Your task to perform on an android device: open sync settings in chrome Image 0: 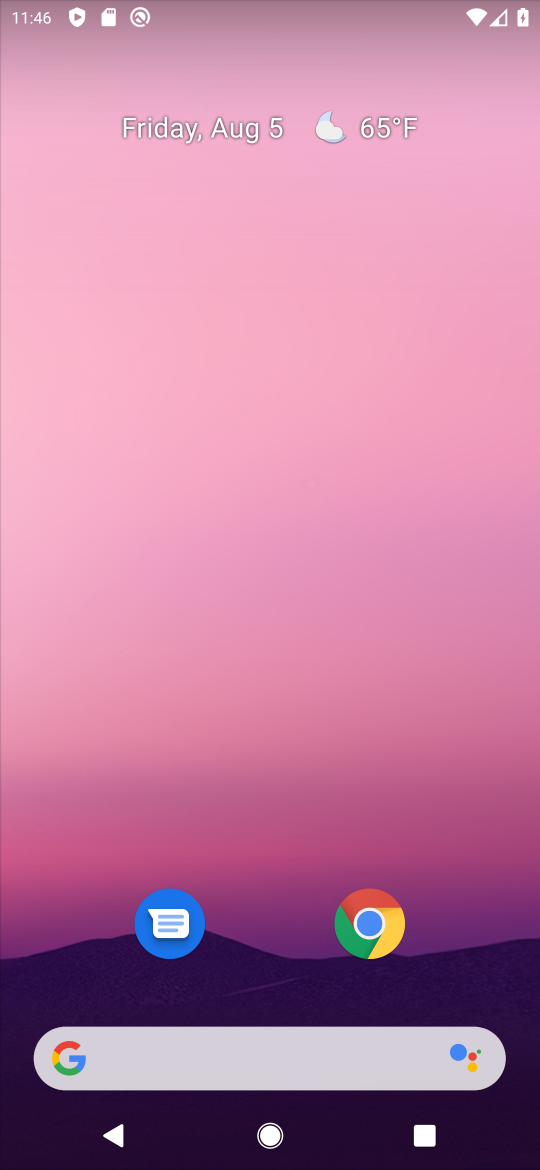
Step 0: drag from (451, 915) to (299, 187)
Your task to perform on an android device: open sync settings in chrome Image 1: 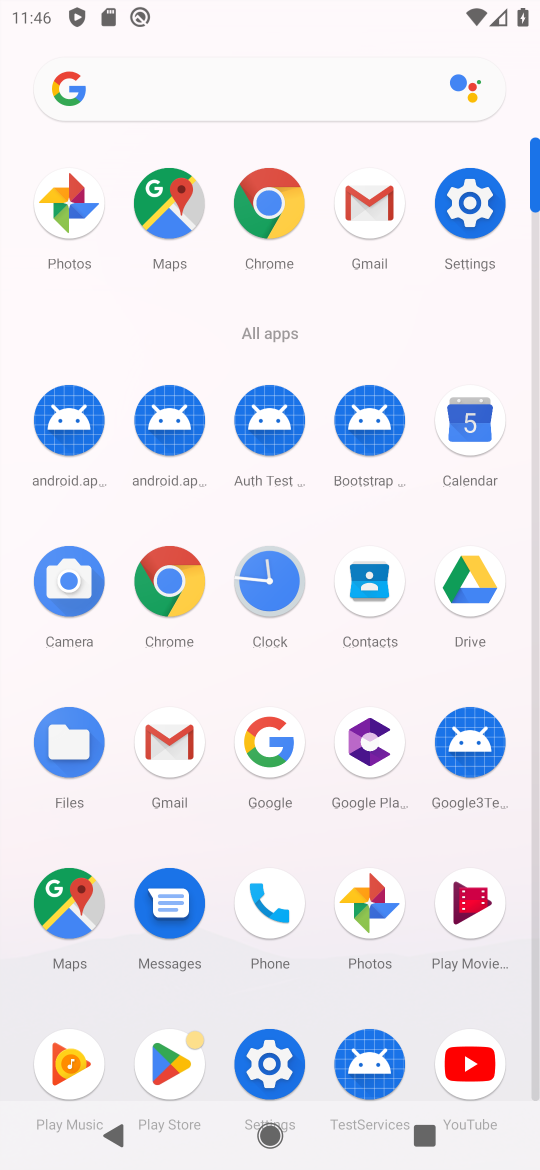
Step 1: click (280, 227)
Your task to perform on an android device: open sync settings in chrome Image 2: 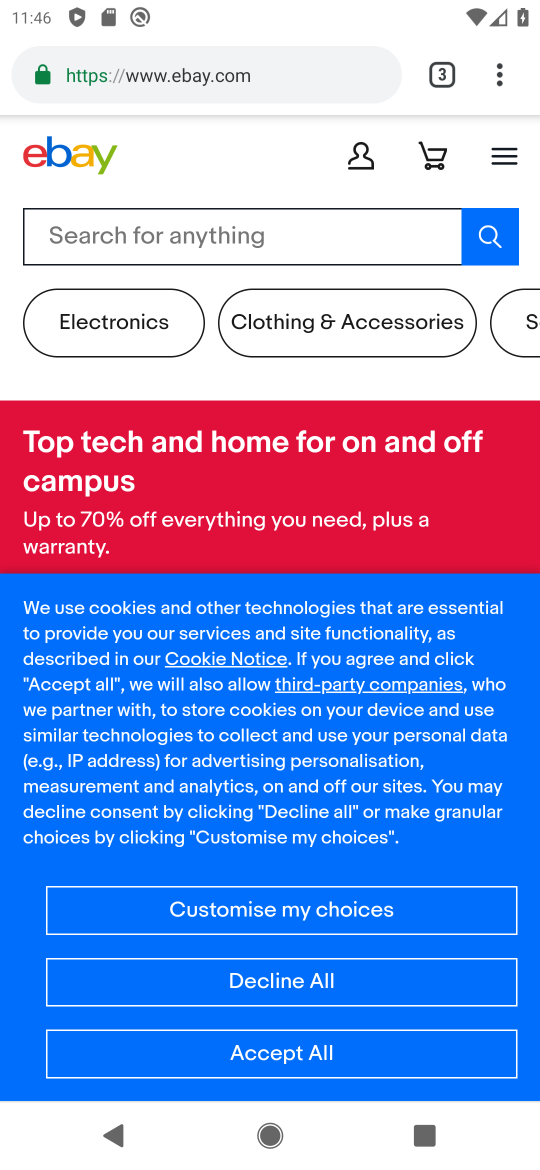
Step 2: click (492, 79)
Your task to perform on an android device: open sync settings in chrome Image 3: 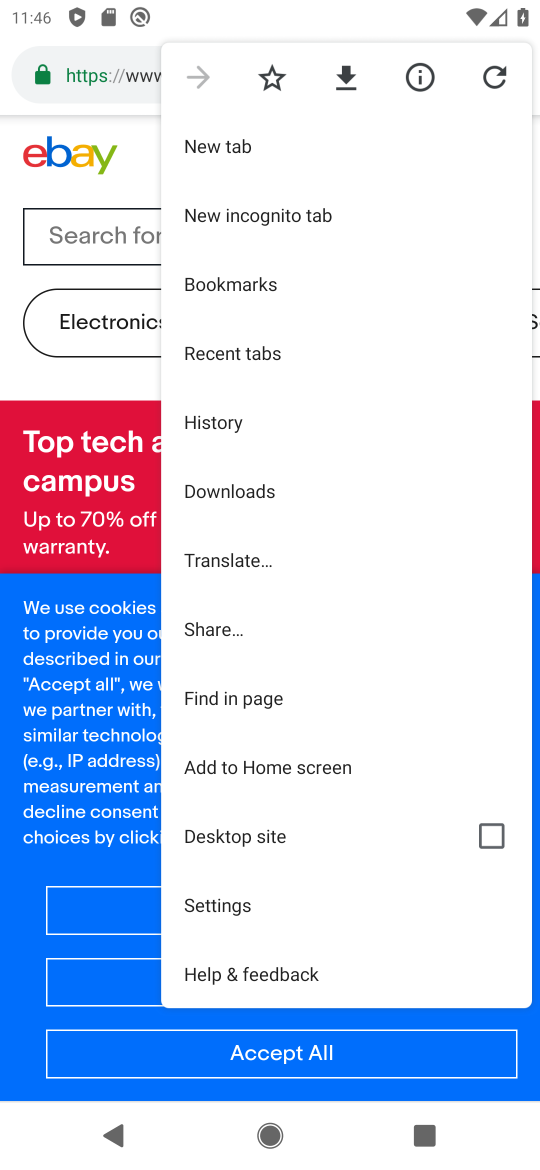
Step 3: click (264, 899)
Your task to perform on an android device: open sync settings in chrome Image 4: 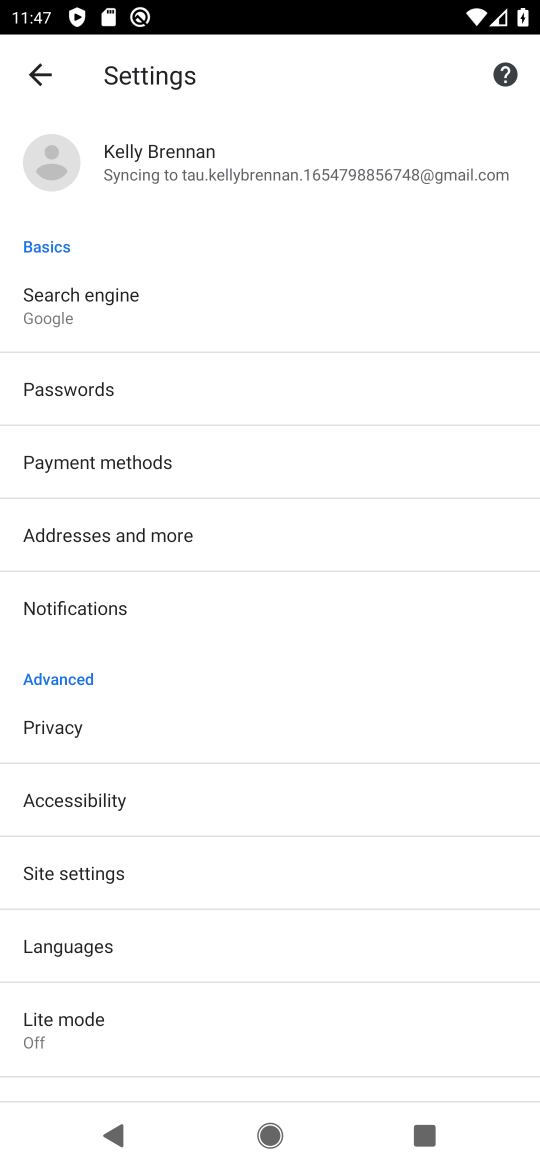
Step 4: click (167, 171)
Your task to perform on an android device: open sync settings in chrome Image 5: 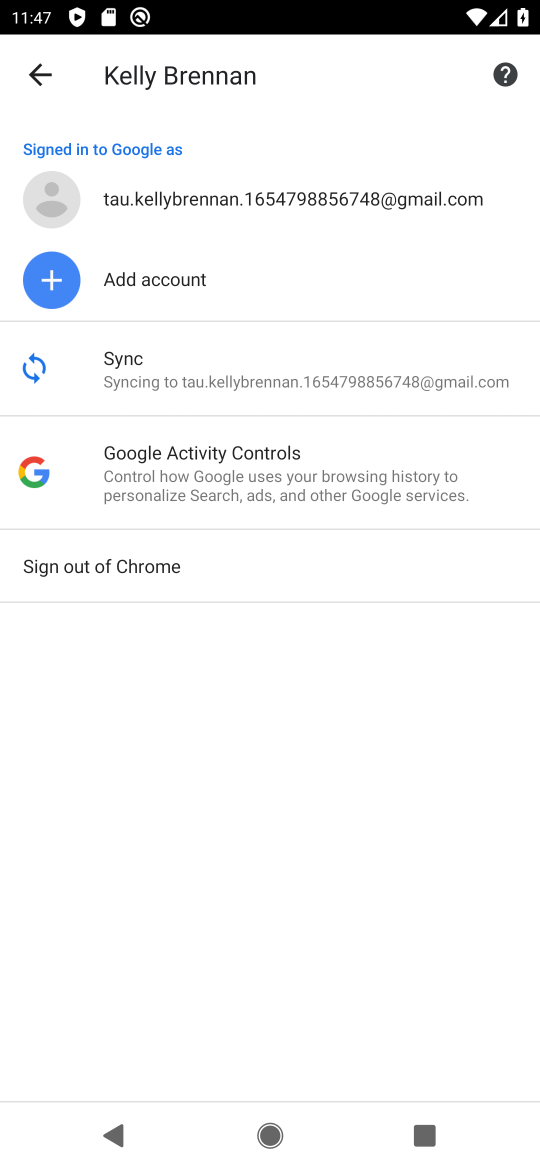
Step 5: click (158, 386)
Your task to perform on an android device: open sync settings in chrome Image 6: 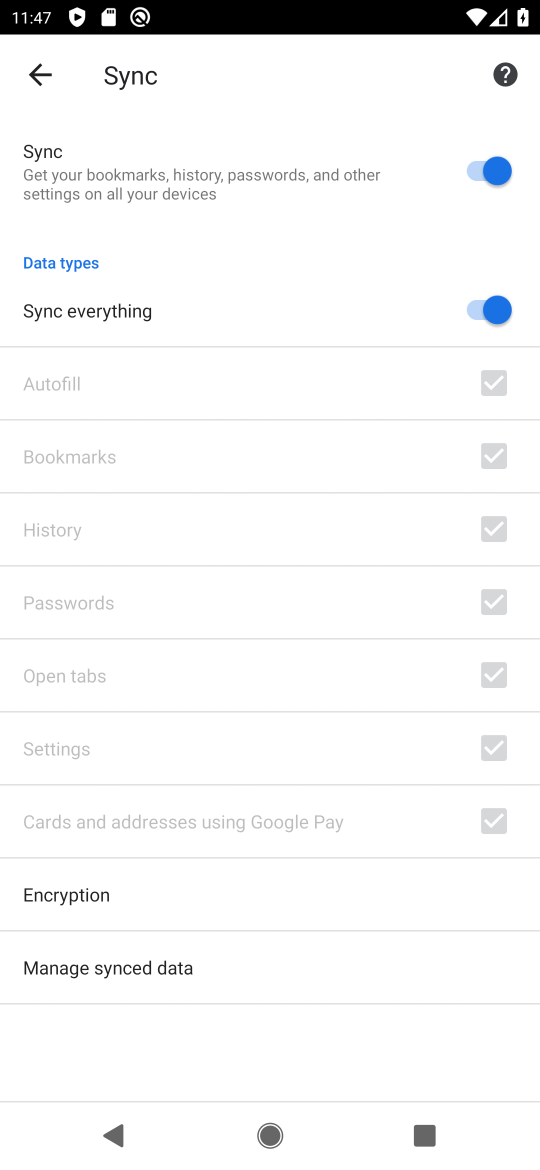
Step 6: task complete